Your task to perform on an android device: Open the Play Movies app and select the watchlist tab. Image 0: 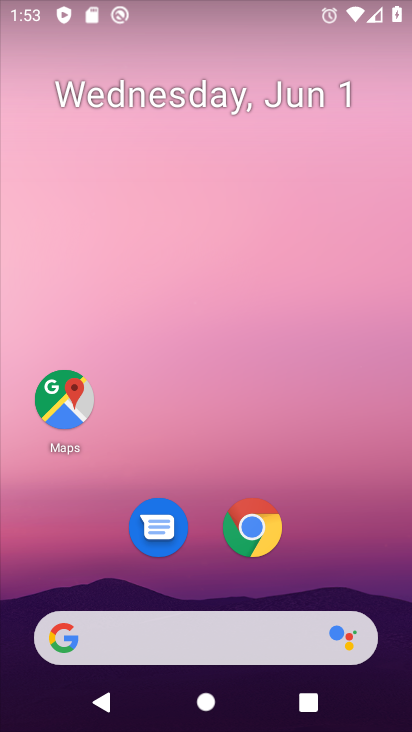
Step 0: drag from (399, 608) to (234, 31)
Your task to perform on an android device: Open the Play Movies app and select the watchlist tab. Image 1: 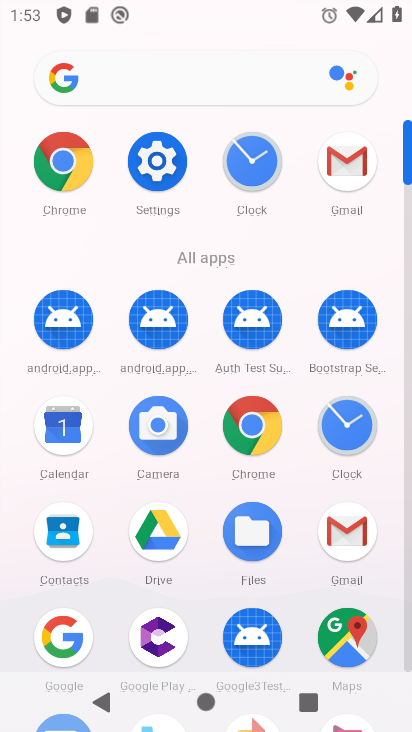
Step 1: click (408, 667)
Your task to perform on an android device: Open the Play Movies app and select the watchlist tab. Image 2: 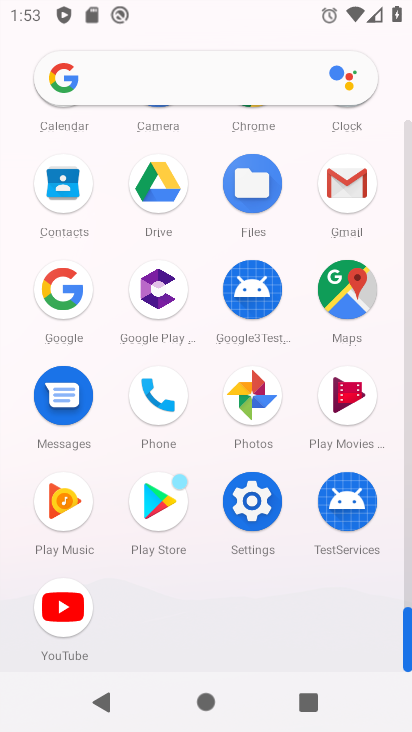
Step 2: click (348, 398)
Your task to perform on an android device: Open the Play Movies app and select the watchlist tab. Image 3: 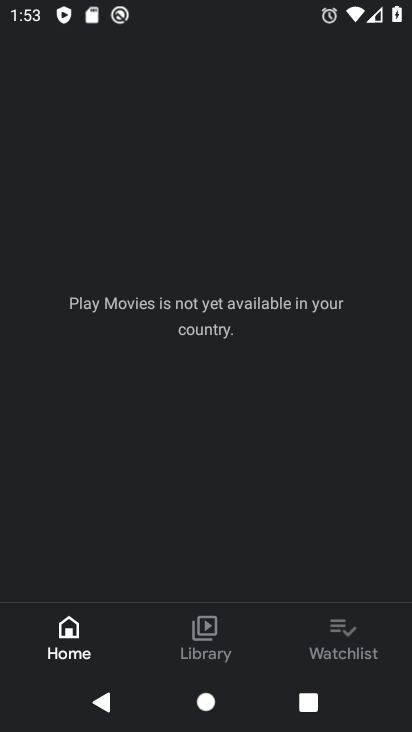
Step 3: click (345, 618)
Your task to perform on an android device: Open the Play Movies app and select the watchlist tab. Image 4: 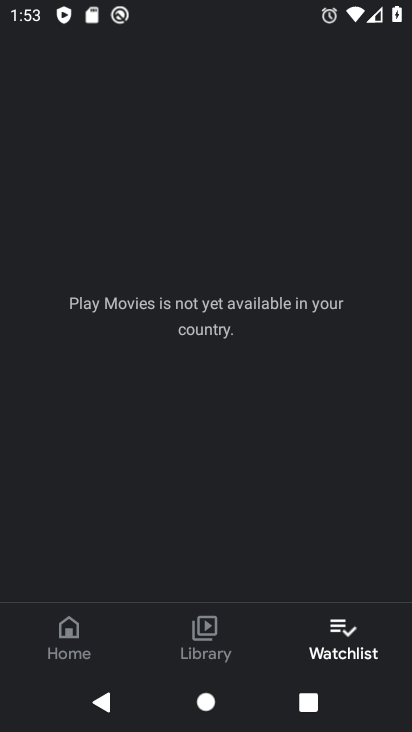
Step 4: task complete